Your task to perform on an android device: Open Google Maps and go to "Timeline" Image 0: 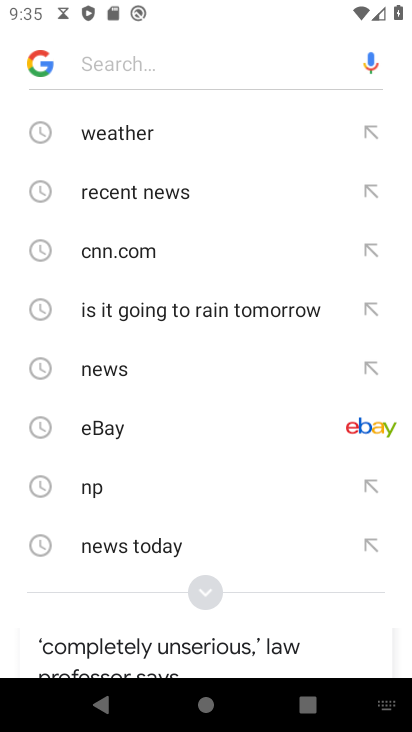
Step 0: press home button
Your task to perform on an android device: Open Google Maps and go to "Timeline" Image 1: 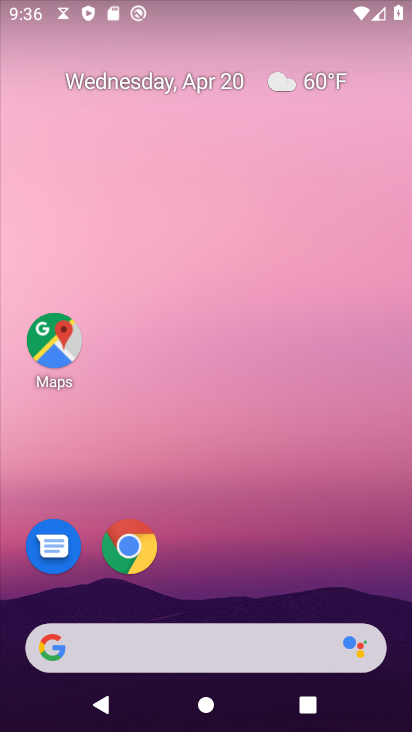
Step 1: drag from (242, 516) to (245, 63)
Your task to perform on an android device: Open Google Maps and go to "Timeline" Image 2: 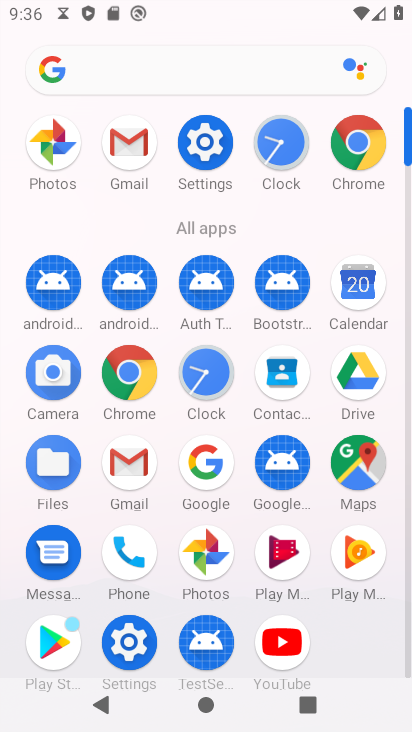
Step 2: click (360, 461)
Your task to perform on an android device: Open Google Maps and go to "Timeline" Image 3: 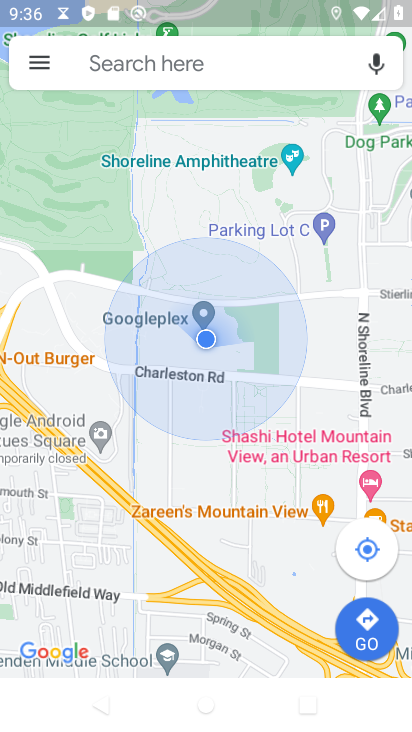
Step 3: click (46, 63)
Your task to perform on an android device: Open Google Maps and go to "Timeline" Image 4: 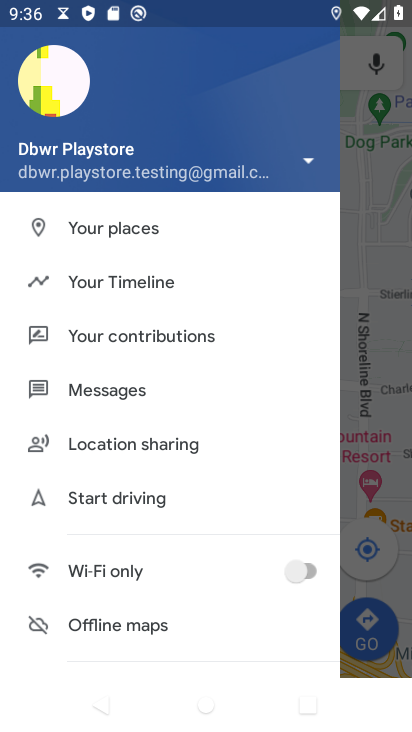
Step 4: click (150, 280)
Your task to perform on an android device: Open Google Maps and go to "Timeline" Image 5: 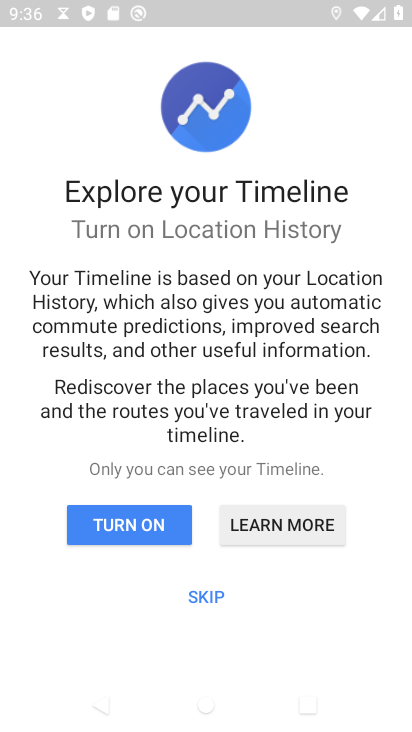
Step 5: click (215, 593)
Your task to perform on an android device: Open Google Maps and go to "Timeline" Image 6: 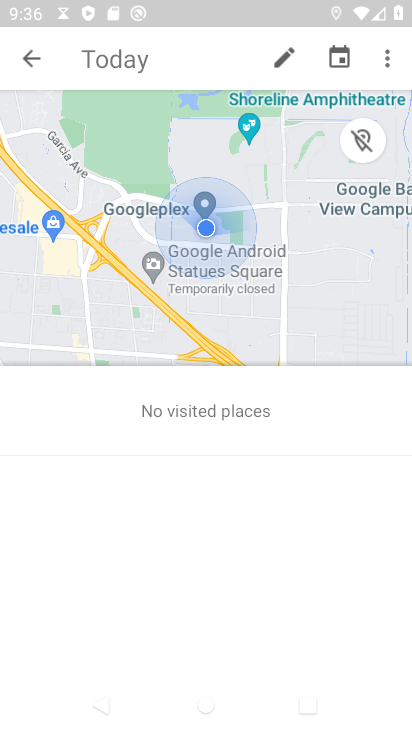
Step 6: task complete